Your task to perform on an android device: Set the phone to "Do not disturb". Image 0: 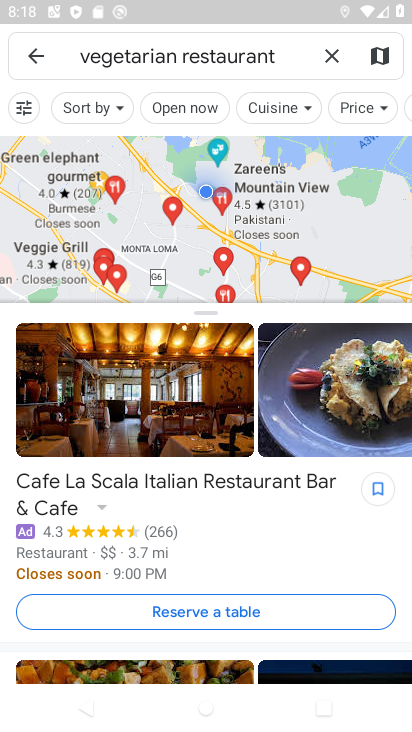
Step 0: drag from (193, 15) to (140, 587)
Your task to perform on an android device: Set the phone to "Do not disturb". Image 1: 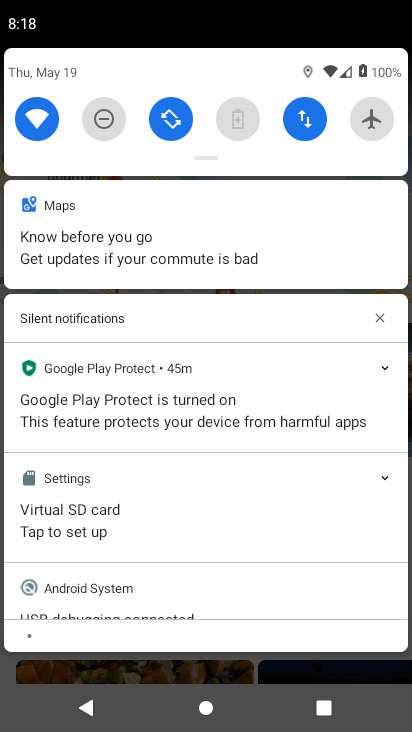
Step 1: click (106, 117)
Your task to perform on an android device: Set the phone to "Do not disturb". Image 2: 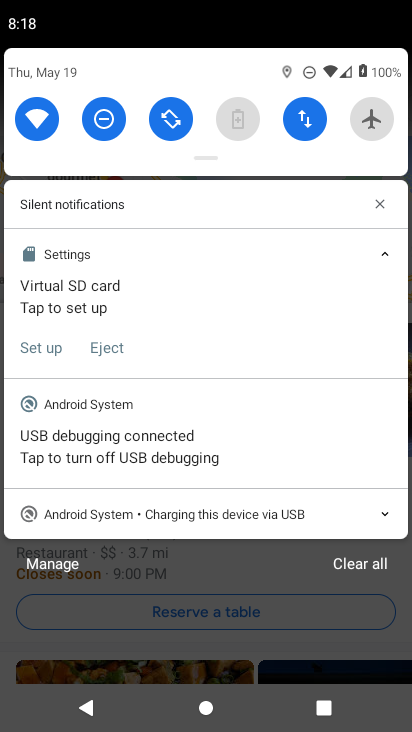
Step 2: task complete